Your task to perform on an android device: Clear all items from cart on amazon. Search for "usb-a to usb-b" on amazon, select the first entry, add it to the cart, then select checkout. Image 0: 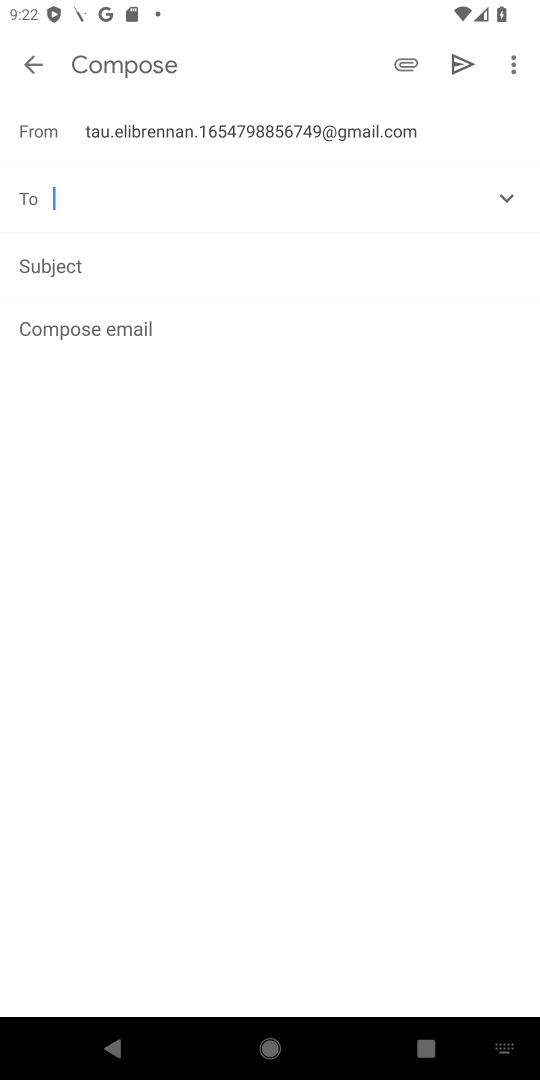
Step 0: press home button
Your task to perform on an android device: Clear all items from cart on amazon. Search for "usb-a to usb-b" on amazon, select the first entry, add it to the cart, then select checkout. Image 1: 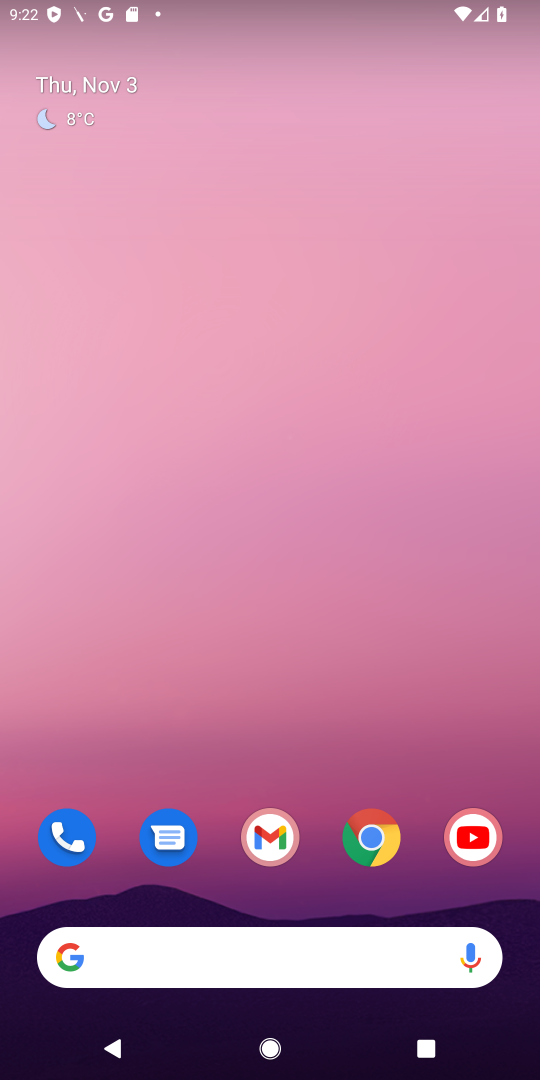
Step 1: click (370, 839)
Your task to perform on an android device: Clear all items from cart on amazon. Search for "usb-a to usb-b" on amazon, select the first entry, add it to the cart, then select checkout. Image 2: 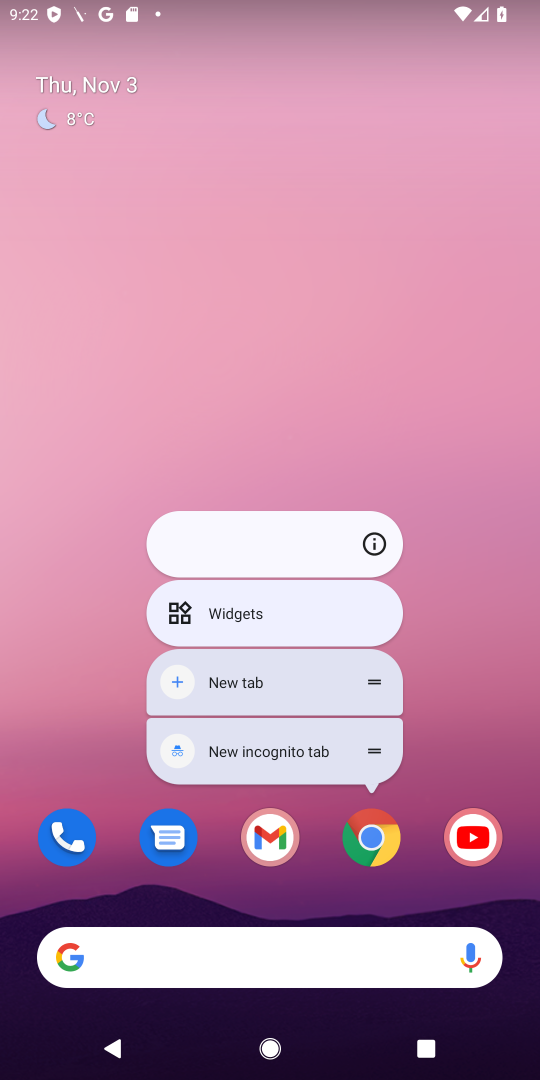
Step 2: click (378, 843)
Your task to perform on an android device: Clear all items from cart on amazon. Search for "usb-a to usb-b" on amazon, select the first entry, add it to the cart, then select checkout. Image 3: 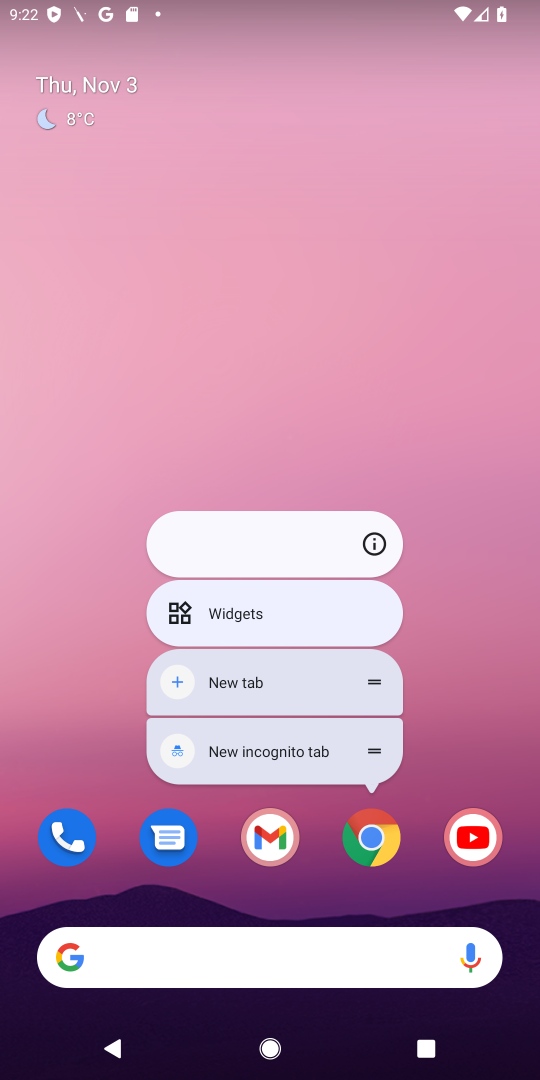
Step 3: click (378, 844)
Your task to perform on an android device: Clear all items from cart on amazon. Search for "usb-a to usb-b" on amazon, select the first entry, add it to the cart, then select checkout. Image 4: 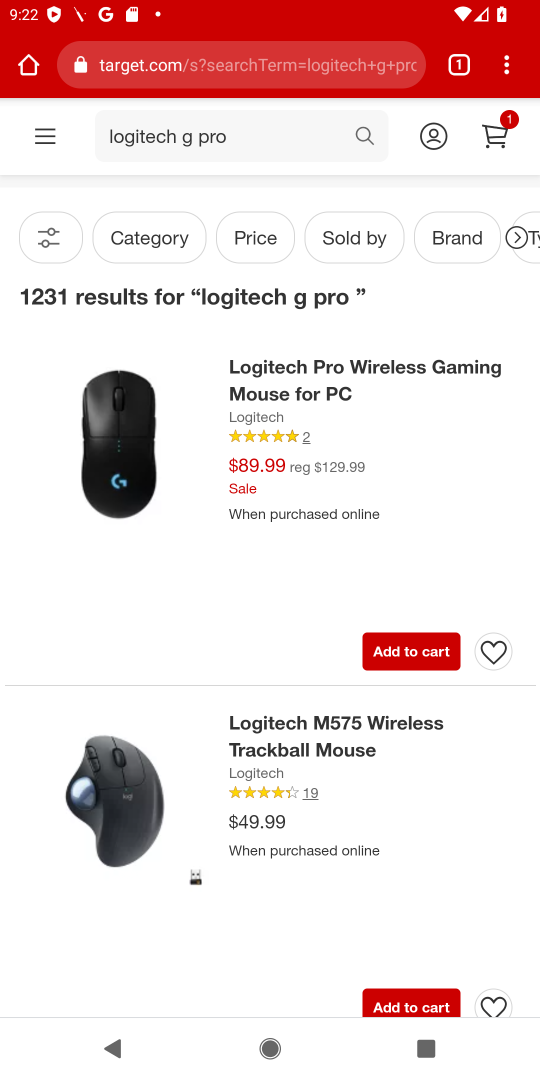
Step 4: click (249, 72)
Your task to perform on an android device: Clear all items from cart on amazon. Search for "usb-a to usb-b" on amazon, select the first entry, add it to the cart, then select checkout. Image 5: 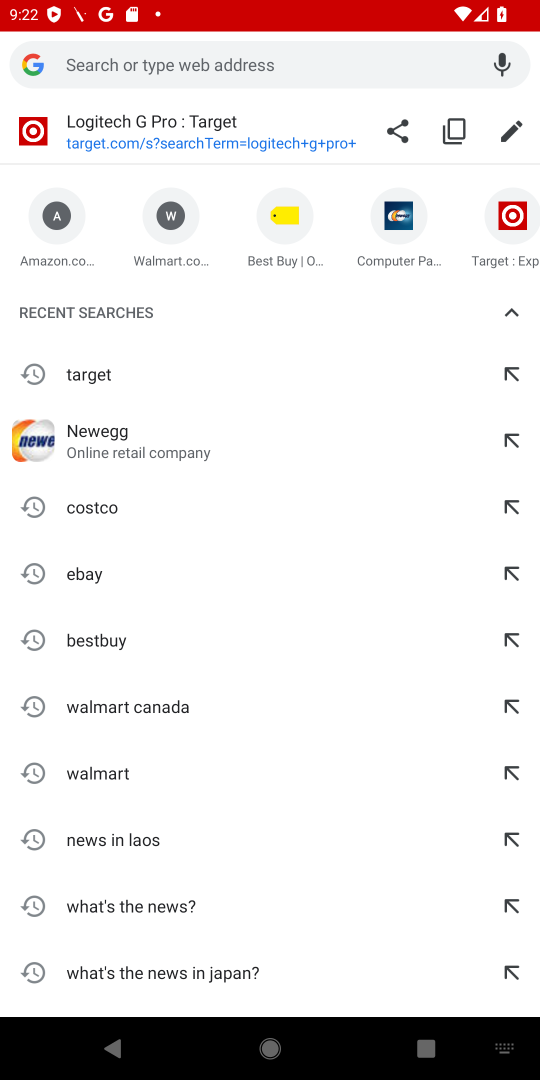
Step 5: type "amazon"
Your task to perform on an android device: Clear all items from cart on amazon. Search for "usb-a to usb-b" on amazon, select the first entry, add it to the cart, then select checkout. Image 6: 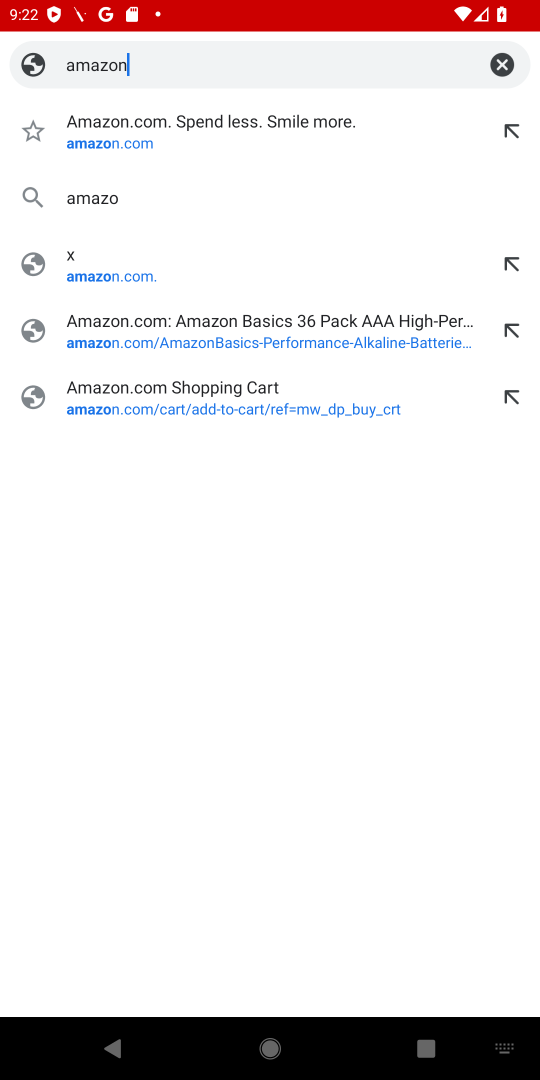
Step 6: press enter
Your task to perform on an android device: Clear all items from cart on amazon. Search for "usb-a to usb-b" on amazon, select the first entry, add it to the cart, then select checkout. Image 7: 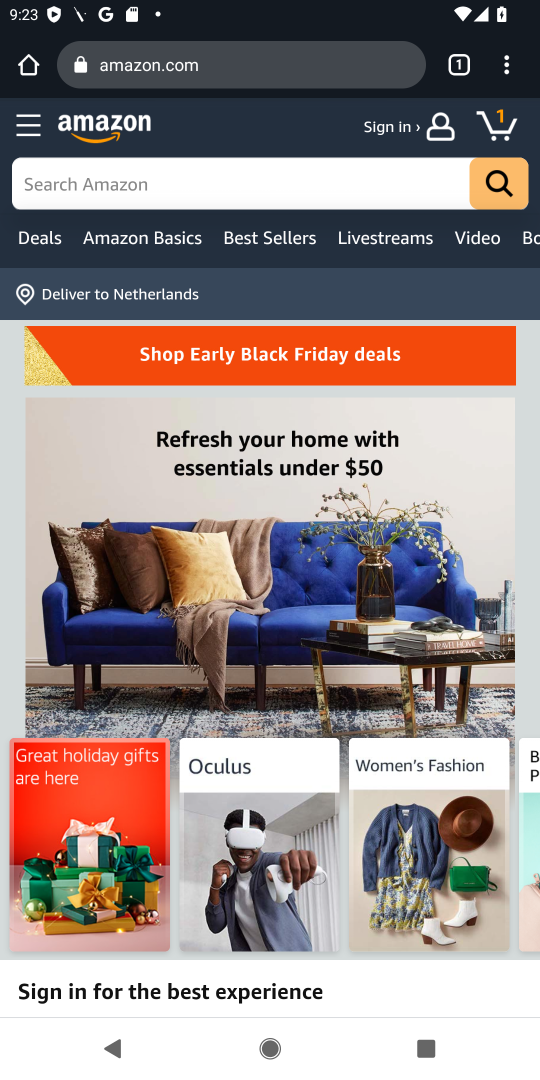
Step 7: press enter
Your task to perform on an android device: Clear all items from cart on amazon. Search for "usb-a to usb-b" on amazon, select the first entry, add it to the cart, then select checkout. Image 8: 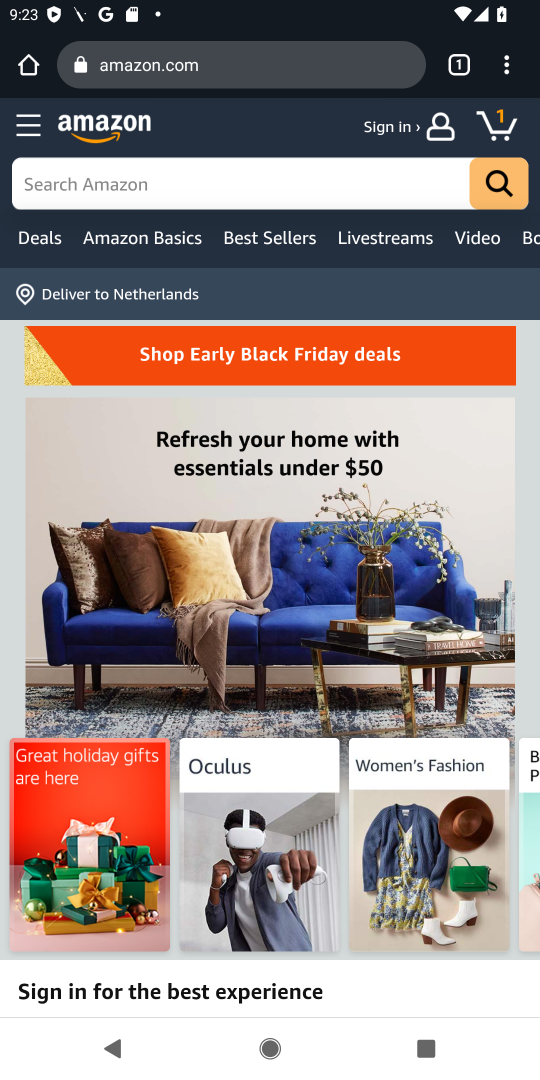
Step 8: type "usb-a to usb-b"
Your task to perform on an android device: Clear all items from cart on amazon. Search for "usb-a to usb-b" on amazon, select the first entry, add it to the cart, then select checkout. Image 9: 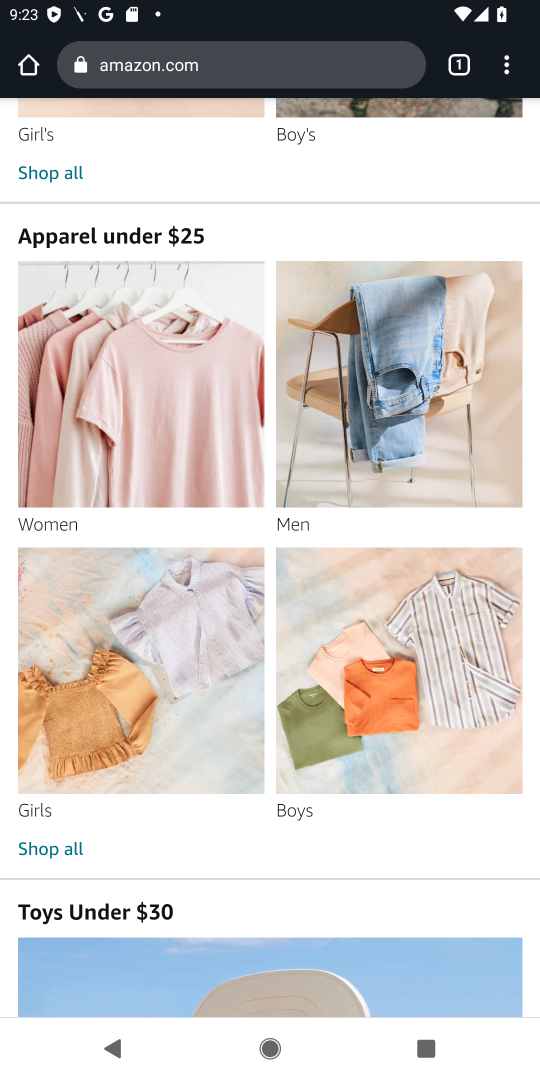
Step 9: drag from (264, 260) to (84, 949)
Your task to perform on an android device: Clear all items from cart on amazon. Search for "usb-a to usb-b" on amazon, select the first entry, add it to the cart, then select checkout. Image 10: 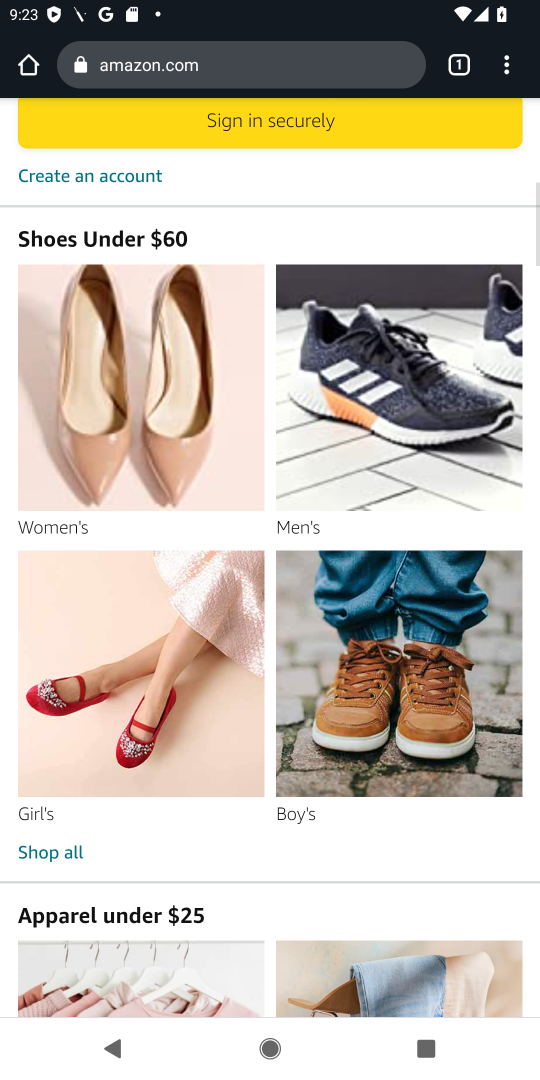
Step 10: drag from (259, 343) to (115, 857)
Your task to perform on an android device: Clear all items from cart on amazon. Search for "usb-a to usb-b" on amazon, select the first entry, add it to the cart, then select checkout. Image 11: 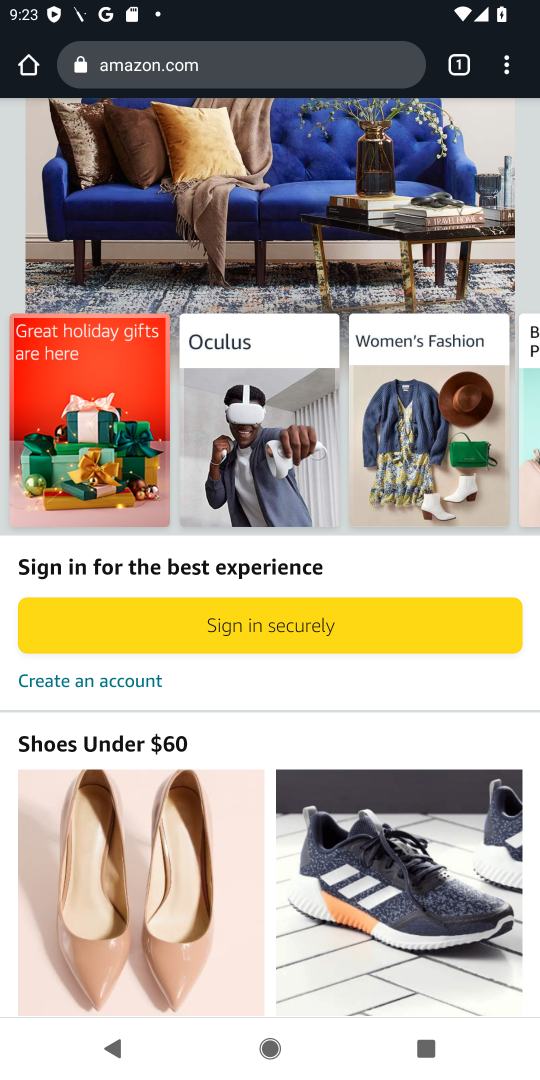
Step 11: drag from (340, 309) to (198, 913)
Your task to perform on an android device: Clear all items from cart on amazon. Search for "usb-a to usb-b" on amazon, select the first entry, add it to the cart, then select checkout. Image 12: 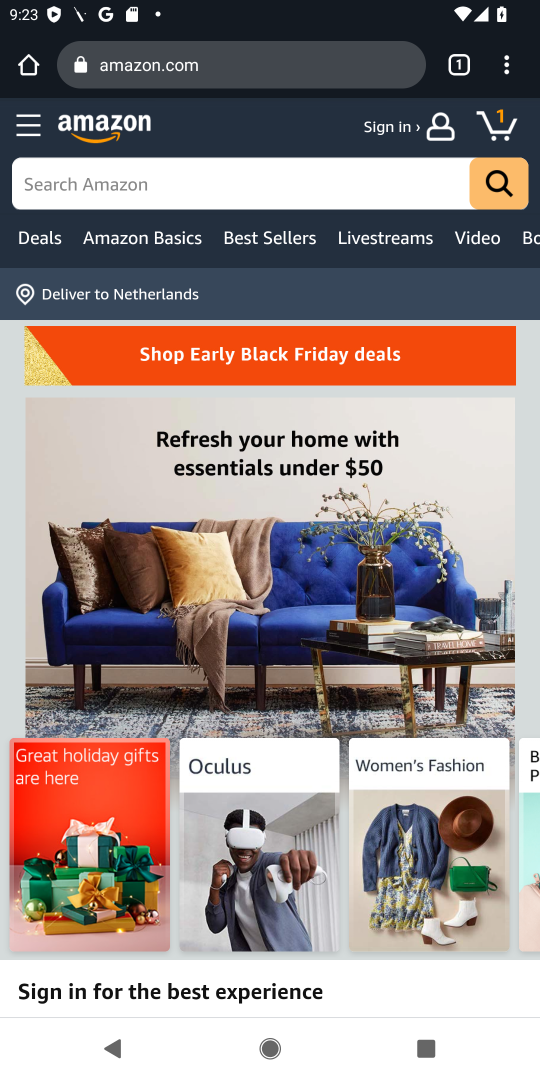
Step 12: click (260, 189)
Your task to perform on an android device: Clear all items from cart on amazon. Search for "usb-a to usb-b" on amazon, select the first entry, add it to the cart, then select checkout. Image 13: 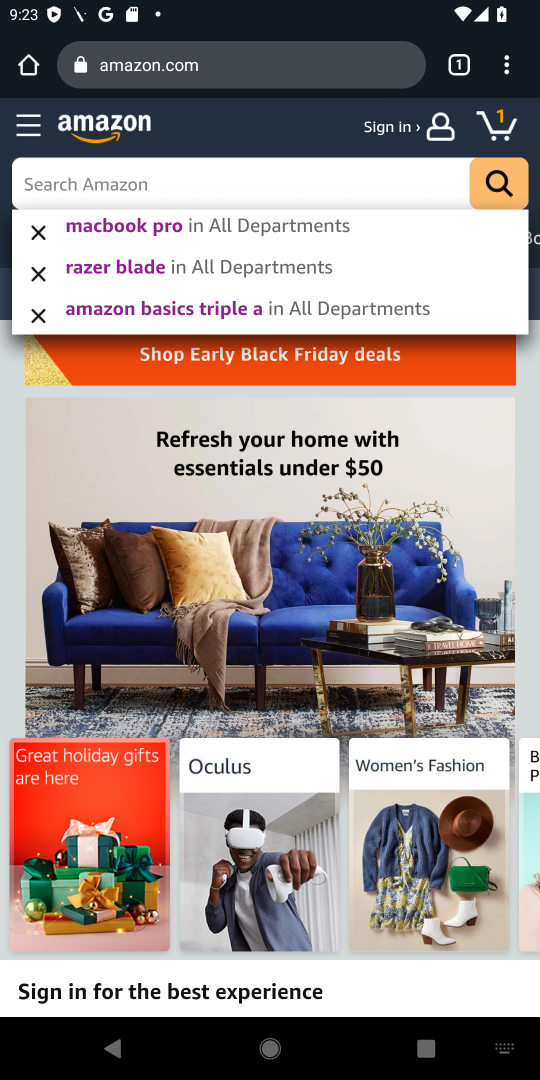
Step 13: type "usb-a to usb-b"
Your task to perform on an android device: Clear all items from cart on amazon. Search for "usb-a to usb-b" on amazon, select the first entry, add it to the cart, then select checkout. Image 14: 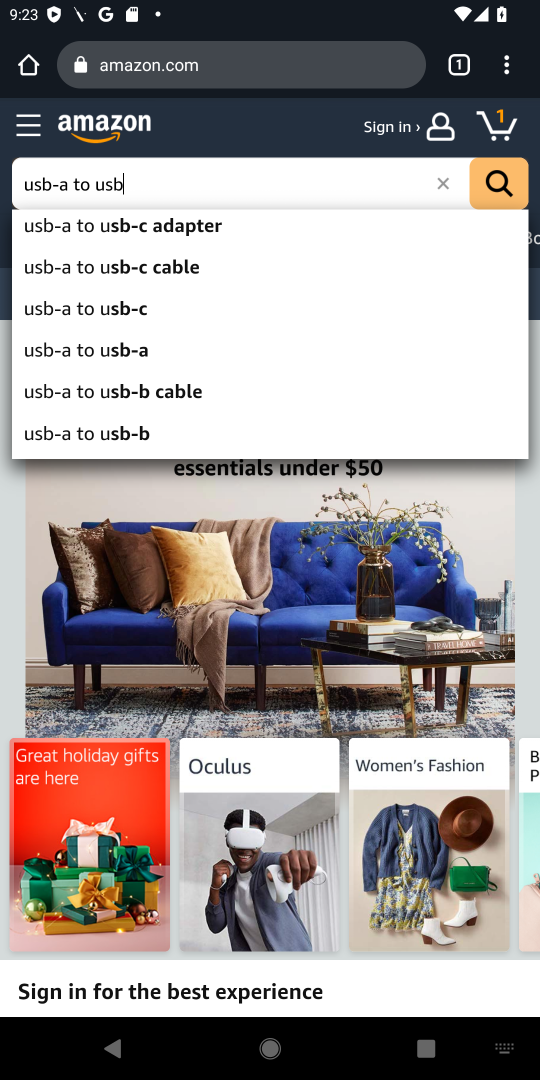
Step 14: press enter
Your task to perform on an android device: Clear all items from cart on amazon. Search for "usb-a to usb-b" on amazon, select the first entry, add it to the cart, then select checkout. Image 15: 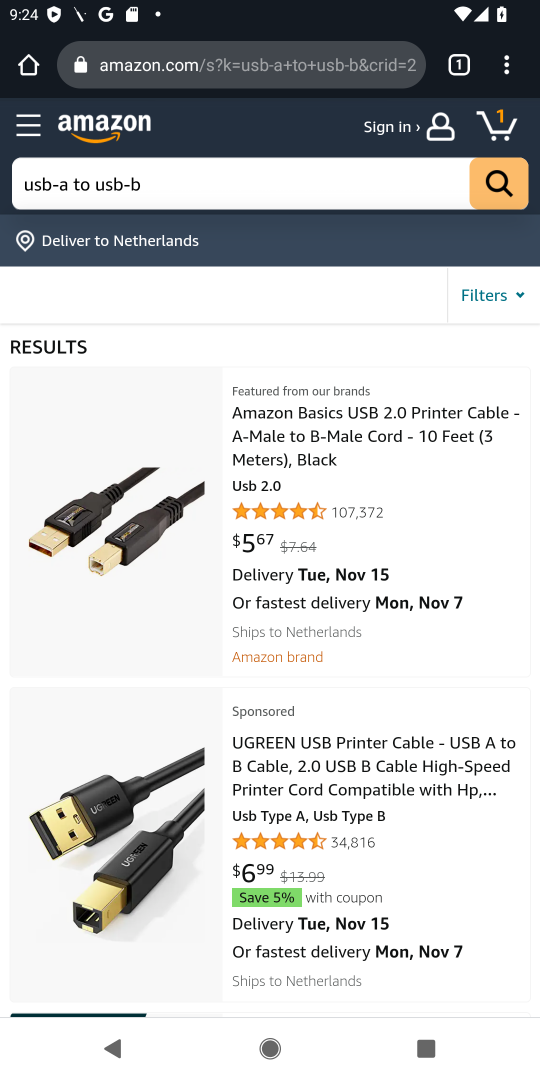
Step 15: click (364, 447)
Your task to perform on an android device: Clear all items from cart on amazon. Search for "usb-a to usb-b" on amazon, select the first entry, add it to the cart, then select checkout. Image 16: 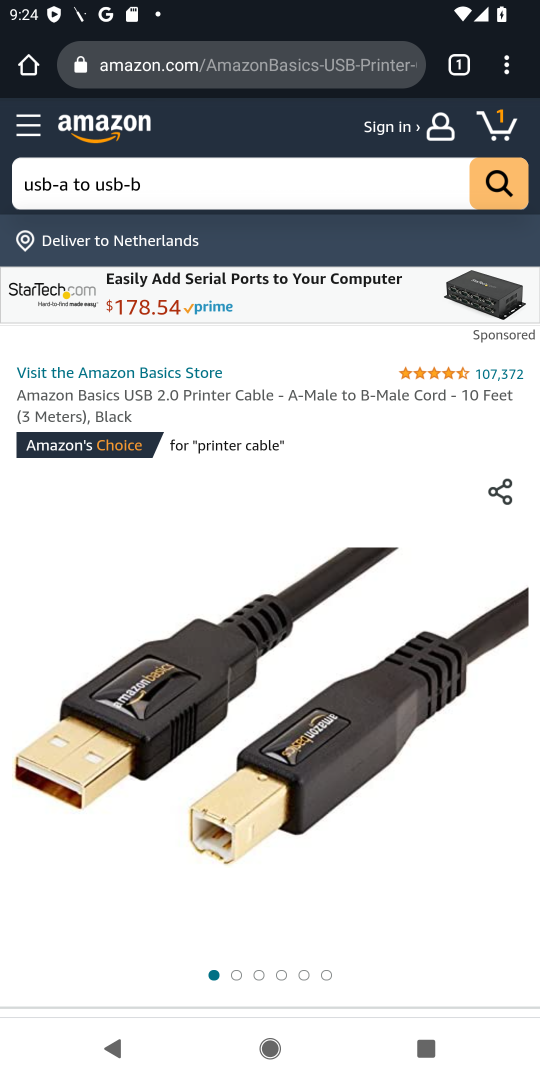
Step 16: task complete